Your task to perform on an android device: turn on airplane mode Image 0: 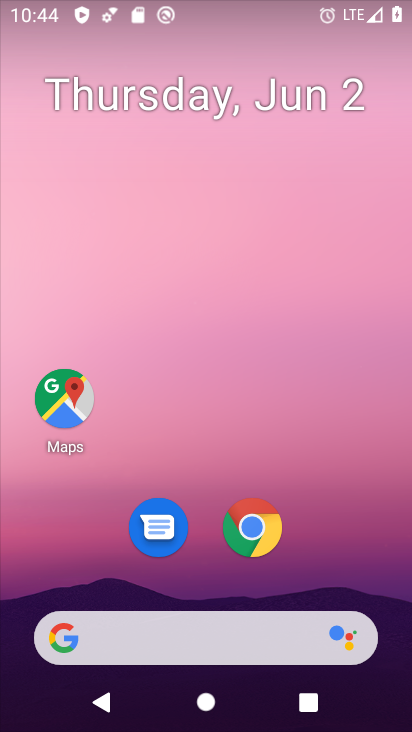
Step 0: drag from (190, 619) to (207, 98)
Your task to perform on an android device: turn on airplane mode Image 1: 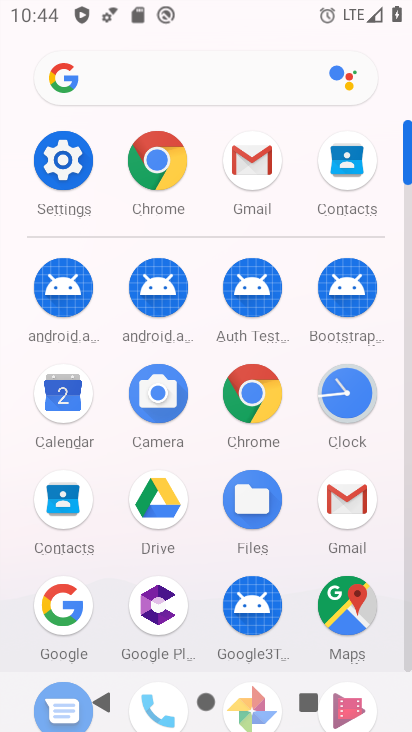
Step 1: click (57, 181)
Your task to perform on an android device: turn on airplane mode Image 2: 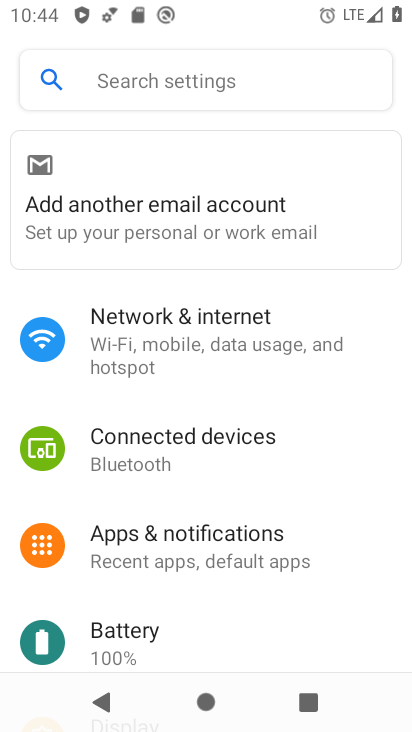
Step 2: click (170, 345)
Your task to perform on an android device: turn on airplane mode Image 3: 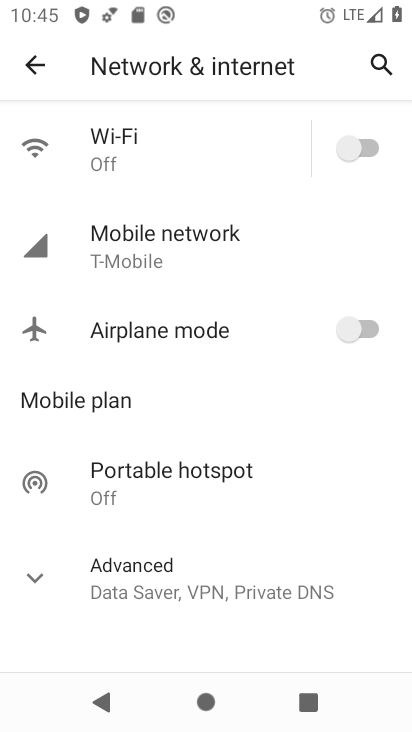
Step 3: click (369, 337)
Your task to perform on an android device: turn on airplane mode Image 4: 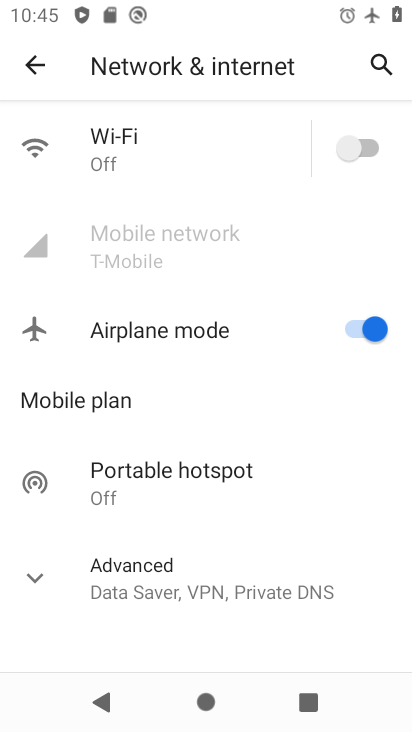
Step 4: task complete